Your task to perform on an android device: turn off notifications settings in the gmail app Image 0: 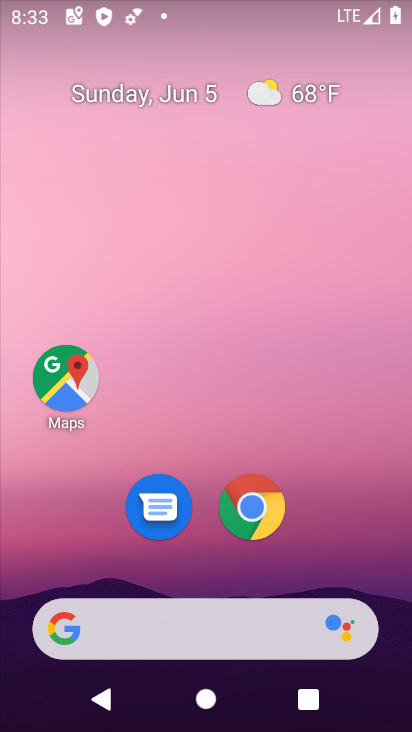
Step 0: drag from (224, 580) to (273, 22)
Your task to perform on an android device: turn off notifications settings in the gmail app Image 1: 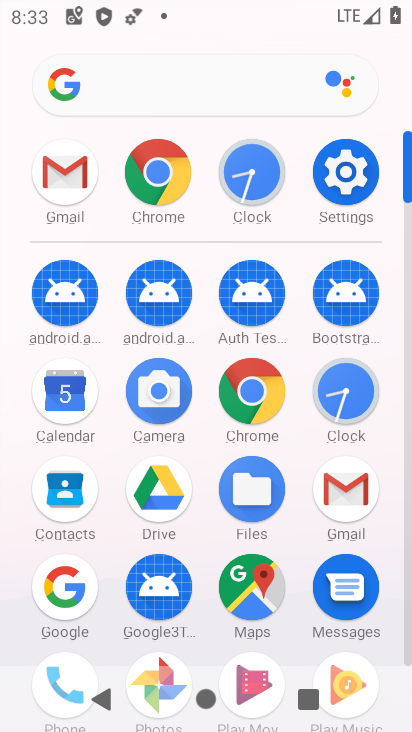
Step 1: click (341, 492)
Your task to perform on an android device: turn off notifications settings in the gmail app Image 2: 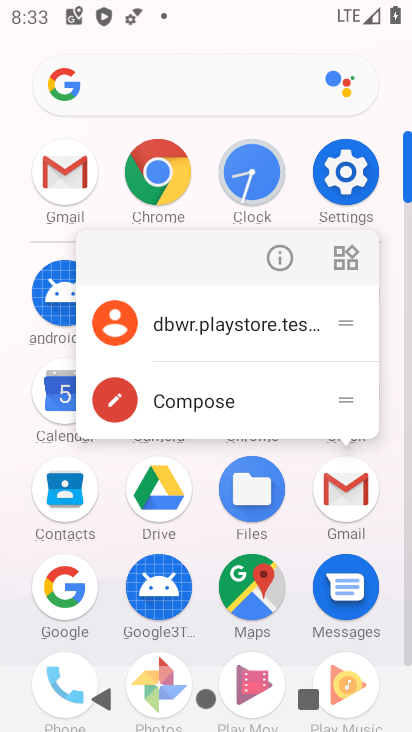
Step 2: click (342, 493)
Your task to perform on an android device: turn off notifications settings in the gmail app Image 3: 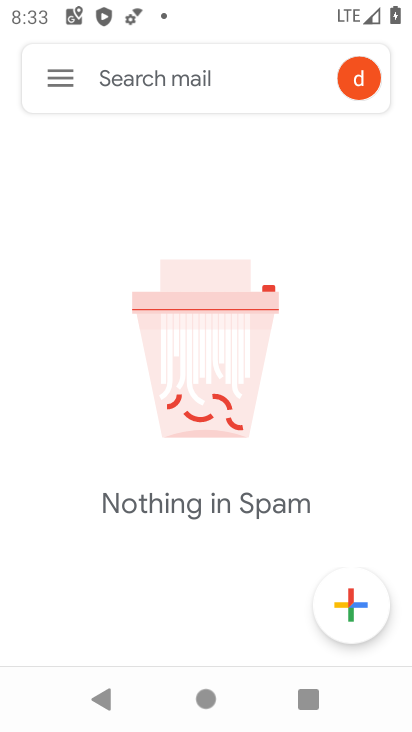
Step 3: click (43, 77)
Your task to perform on an android device: turn off notifications settings in the gmail app Image 4: 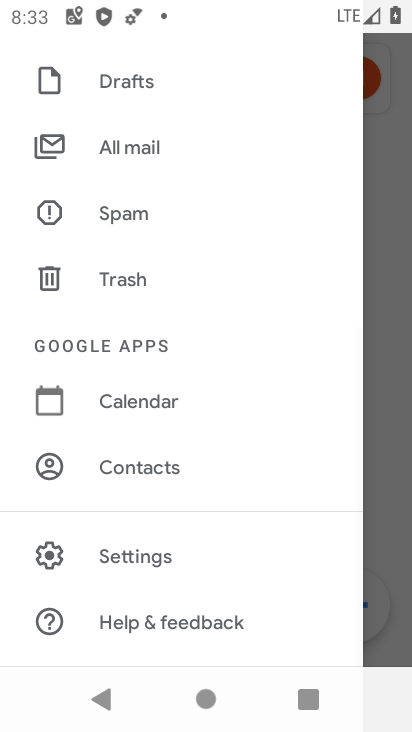
Step 4: click (163, 557)
Your task to perform on an android device: turn off notifications settings in the gmail app Image 5: 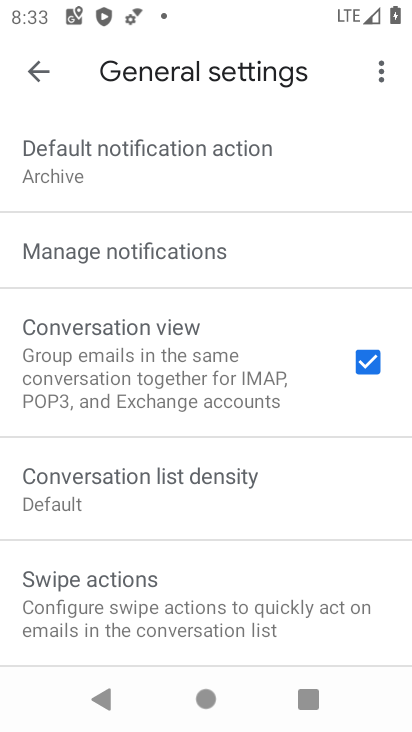
Step 5: click (110, 264)
Your task to perform on an android device: turn off notifications settings in the gmail app Image 6: 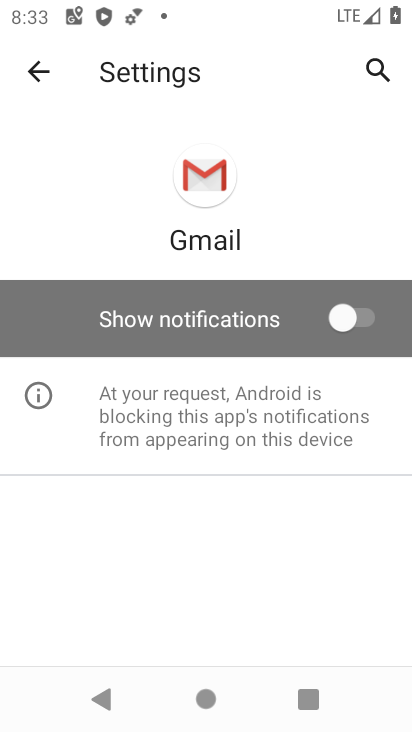
Step 6: task complete